Your task to perform on an android device: move a message to another label in the gmail app Image 0: 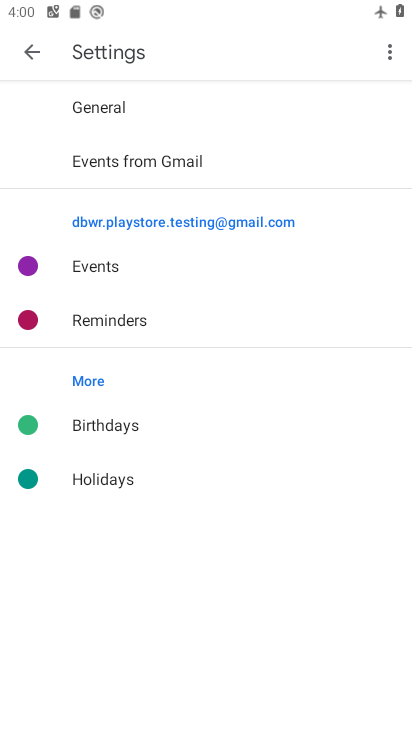
Step 0: press home button
Your task to perform on an android device: move a message to another label in the gmail app Image 1: 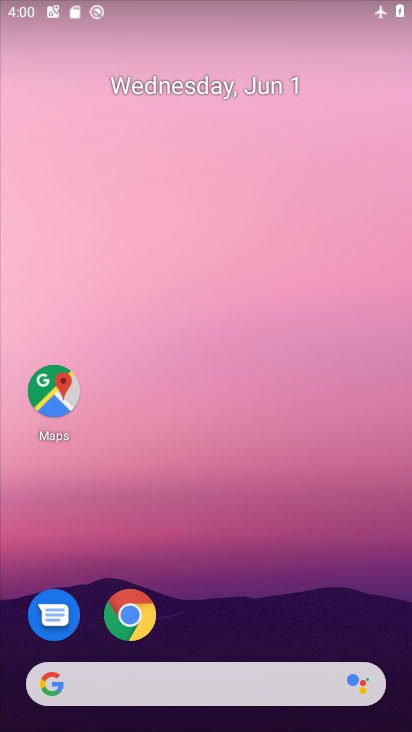
Step 1: drag from (303, 482) to (361, 45)
Your task to perform on an android device: move a message to another label in the gmail app Image 2: 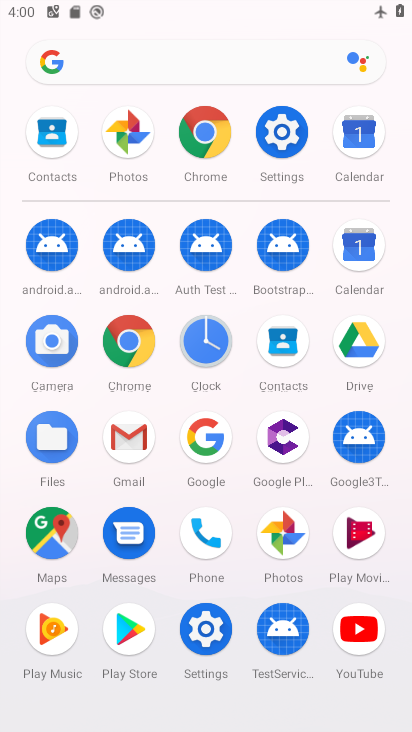
Step 2: click (131, 438)
Your task to perform on an android device: move a message to another label in the gmail app Image 3: 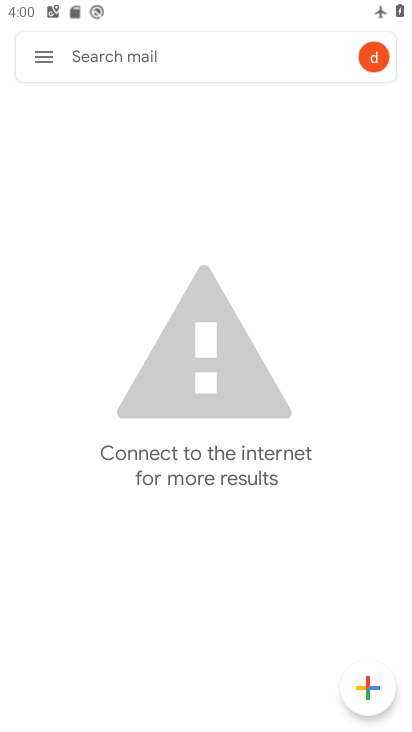
Step 3: click (48, 59)
Your task to perform on an android device: move a message to another label in the gmail app Image 4: 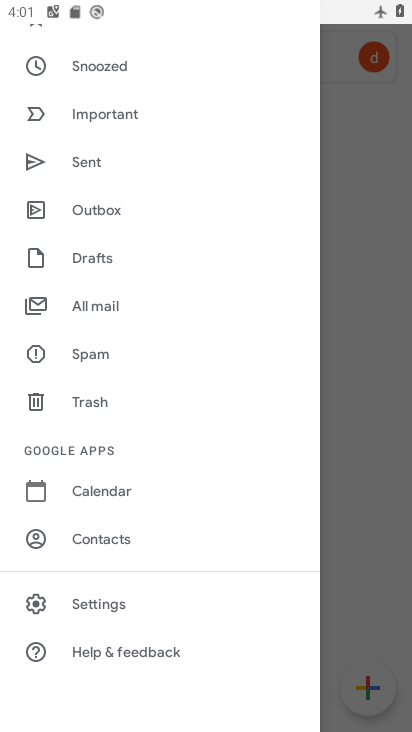
Step 4: click (106, 297)
Your task to perform on an android device: move a message to another label in the gmail app Image 5: 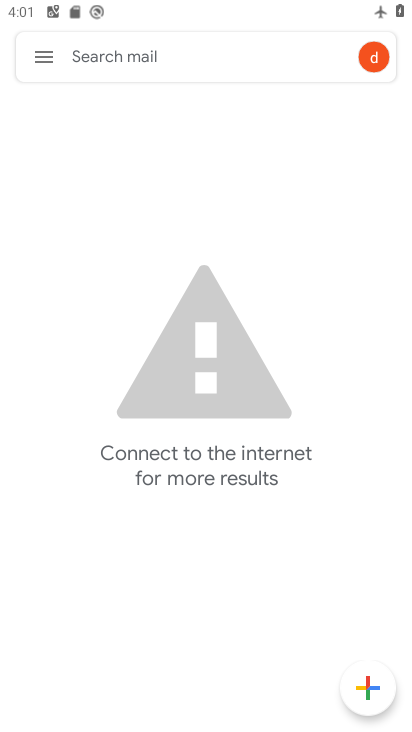
Step 5: task complete